Your task to perform on an android device: turn on improve location accuracy Image 0: 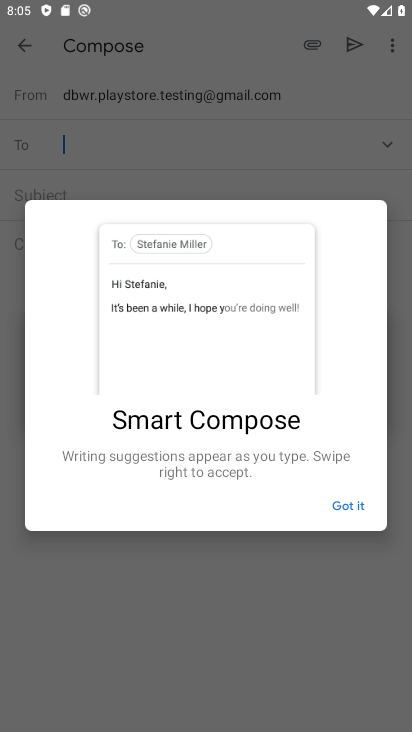
Step 0: press home button
Your task to perform on an android device: turn on improve location accuracy Image 1: 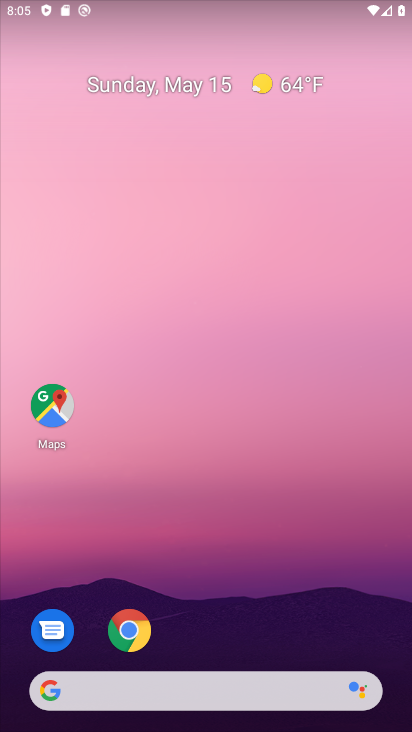
Step 1: drag from (328, 610) to (364, 84)
Your task to perform on an android device: turn on improve location accuracy Image 2: 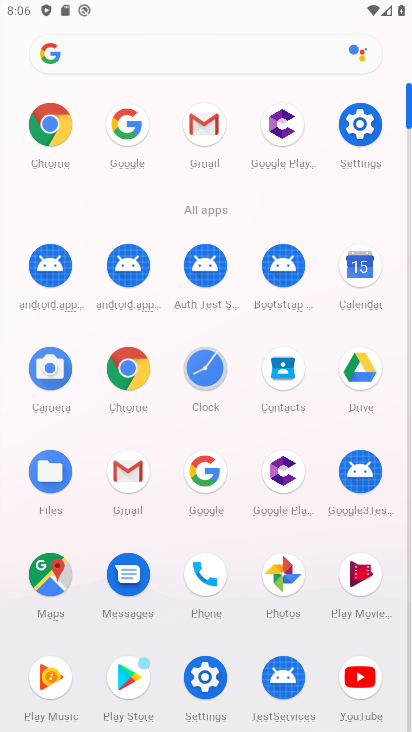
Step 2: click (350, 130)
Your task to perform on an android device: turn on improve location accuracy Image 3: 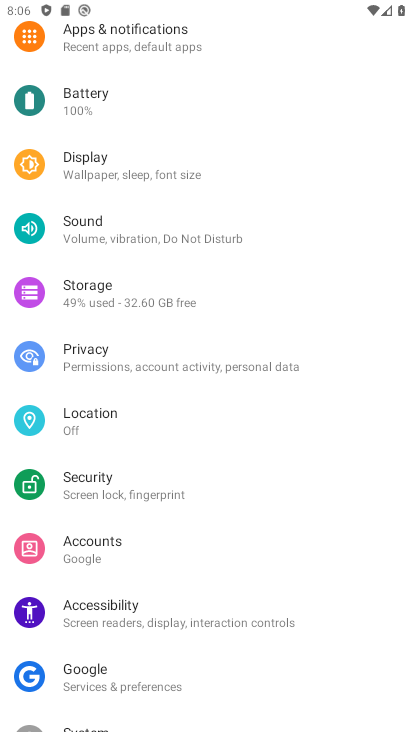
Step 3: click (111, 430)
Your task to perform on an android device: turn on improve location accuracy Image 4: 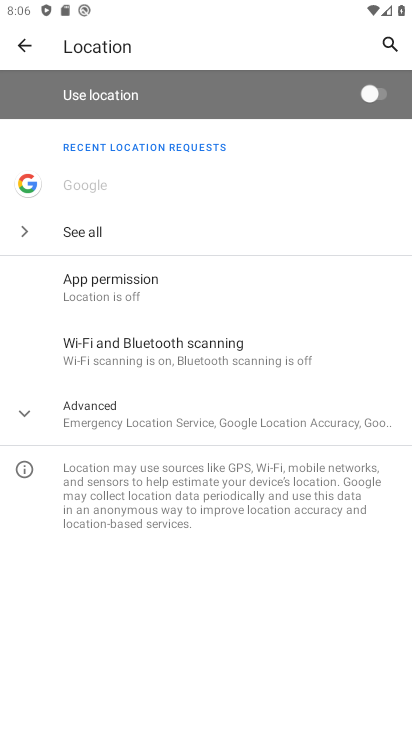
Step 4: click (155, 409)
Your task to perform on an android device: turn on improve location accuracy Image 5: 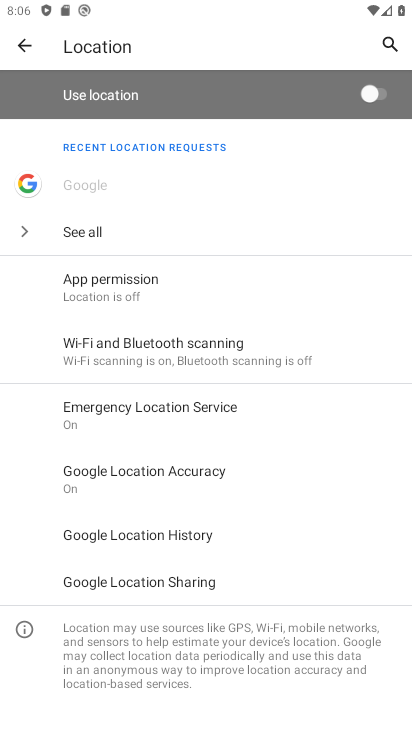
Step 5: click (177, 480)
Your task to perform on an android device: turn on improve location accuracy Image 6: 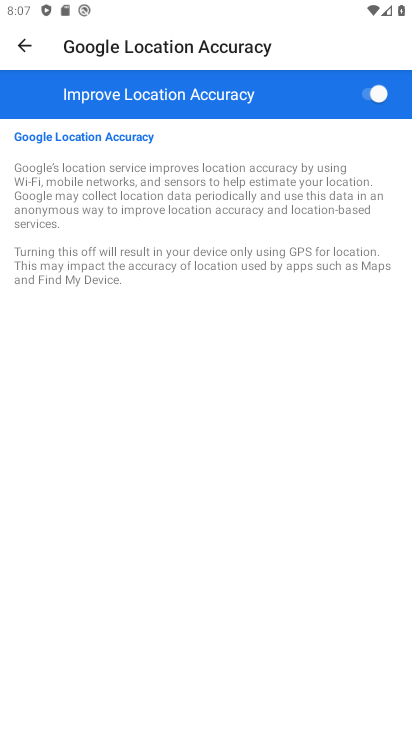
Step 6: task complete